Your task to perform on an android device: Open maps Image 0: 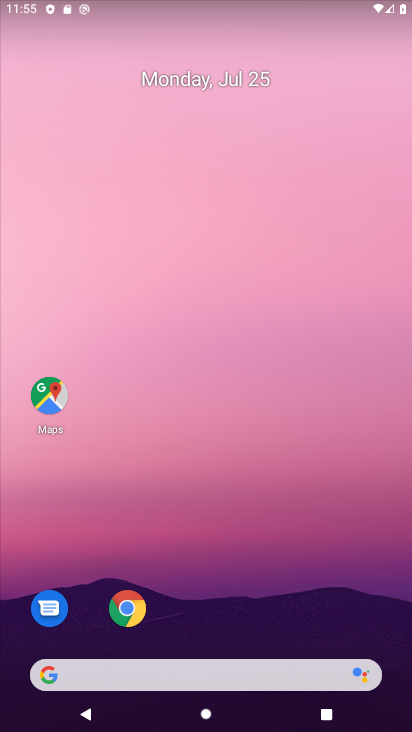
Step 0: click (59, 387)
Your task to perform on an android device: Open maps Image 1: 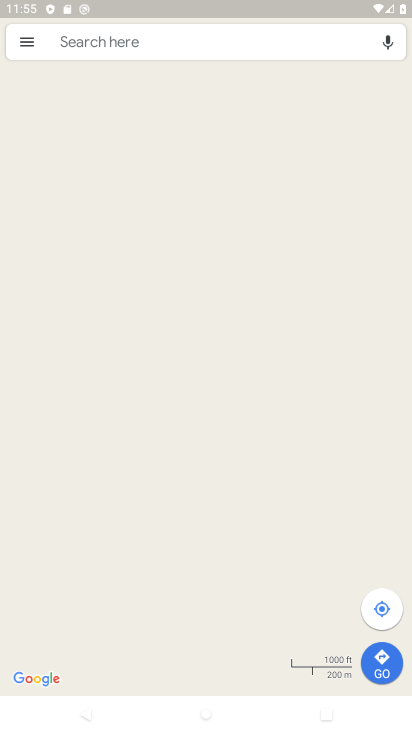
Step 1: task complete